Your task to perform on an android device: Open Chrome and go to settings Image 0: 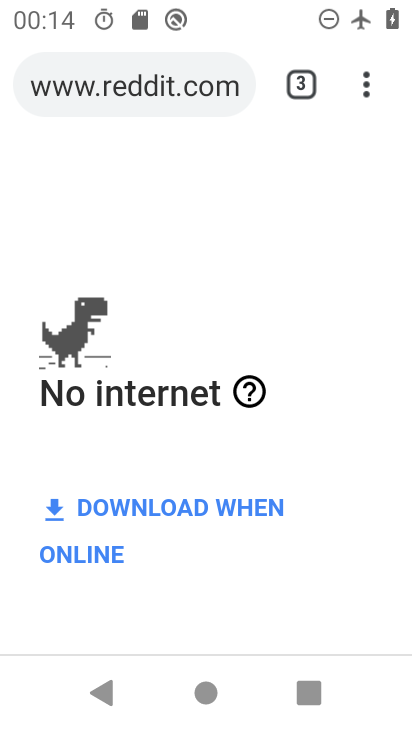
Step 0: press home button
Your task to perform on an android device: Open Chrome and go to settings Image 1: 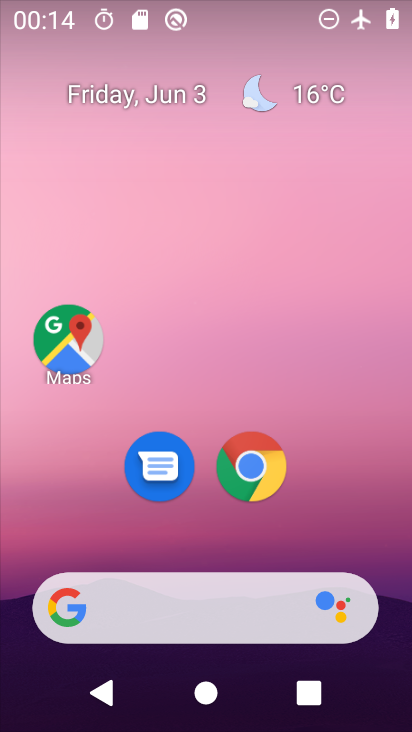
Step 1: click (237, 476)
Your task to perform on an android device: Open Chrome and go to settings Image 2: 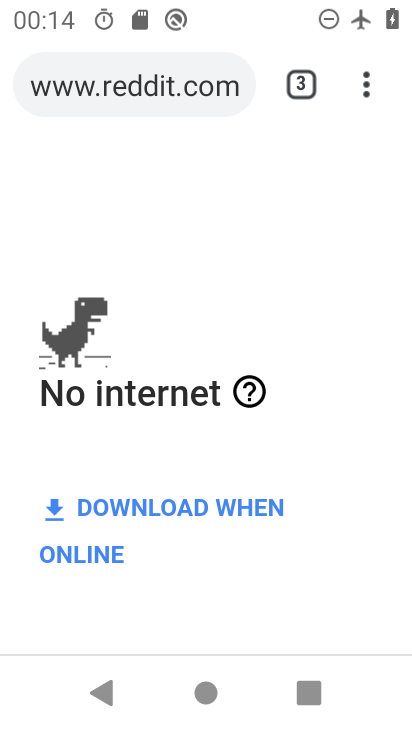
Step 2: click (363, 84)
Your task to perform on an android device: Open Chrome and go to settings Image 3: 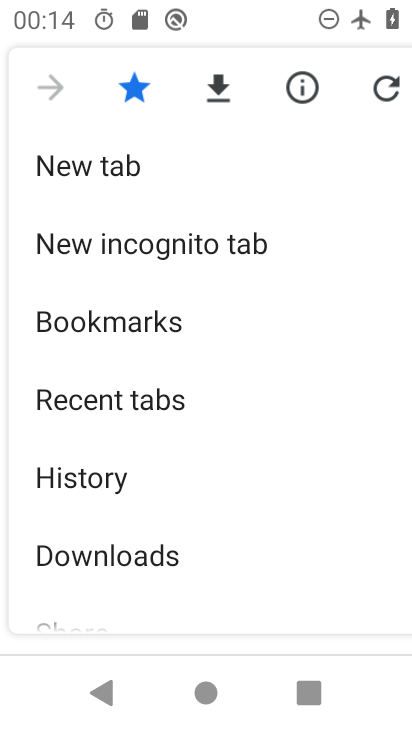
Step 3: drag from (176, 583) to (259, 174)
Your task to perform on an android device: Open Chrome and go to settings Image 4: 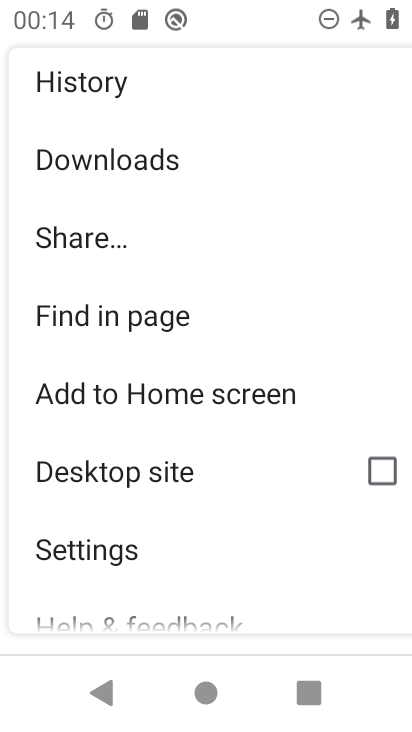
Step 4: drag from (239, 581) to (232, 324)
Your task to perform on an android device: Open Chrome and go to settings Image 5: 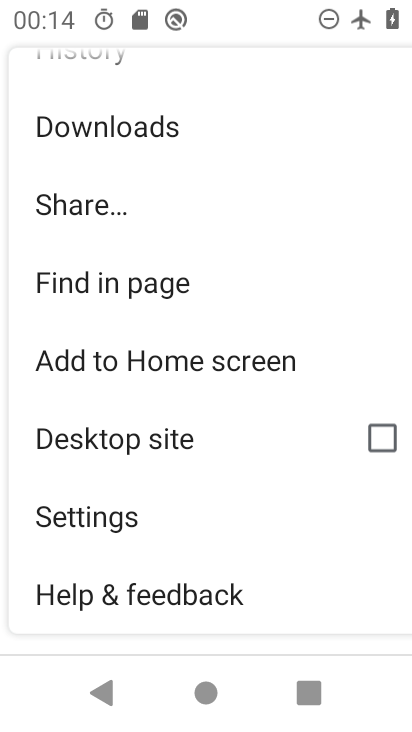
Step 5: click (170, 509)
Your task to perform on an android device: Open Chrome and go to settings Image 6: 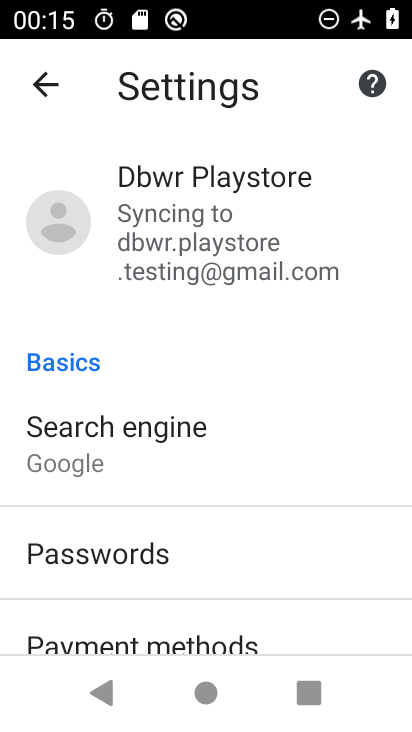
Step 6: task complete